Your task to perform on an android device: What's the weather going to be tomorrow? Image 0: 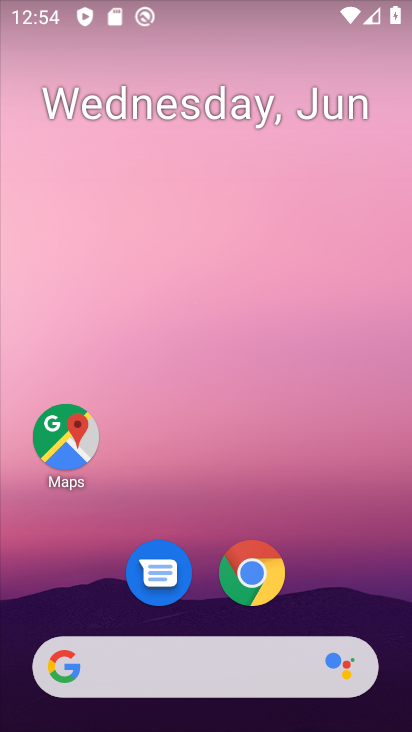
Step 0: drag from (337, 553) to (307, 165)
Your task to perform on an android device: What's the weather going to be tomorrow? Image 1: 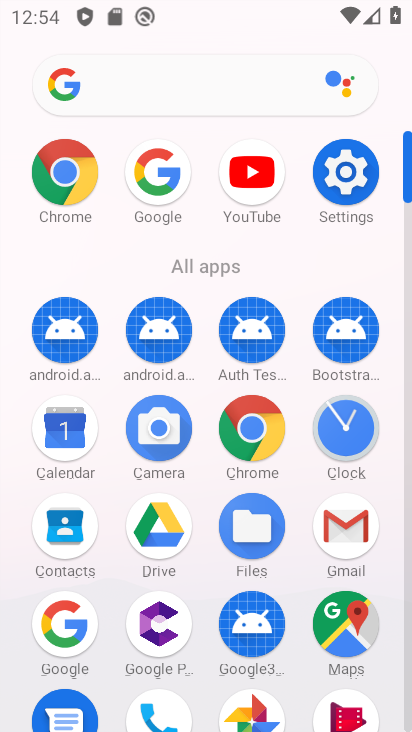
Step 1: click (245, 428)
Your task to perform on an android device: What's the weather going to be tomorrow? Image 2: 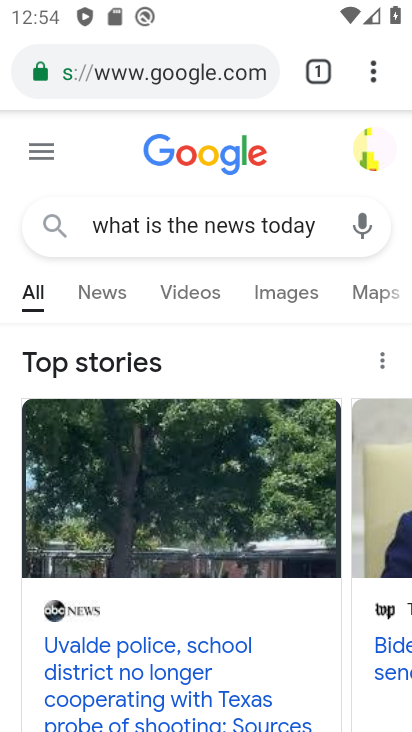
Step 2: click (149, 78)
Your task to perform on an android device: What's the weather going to be tomorrow? Image 3: 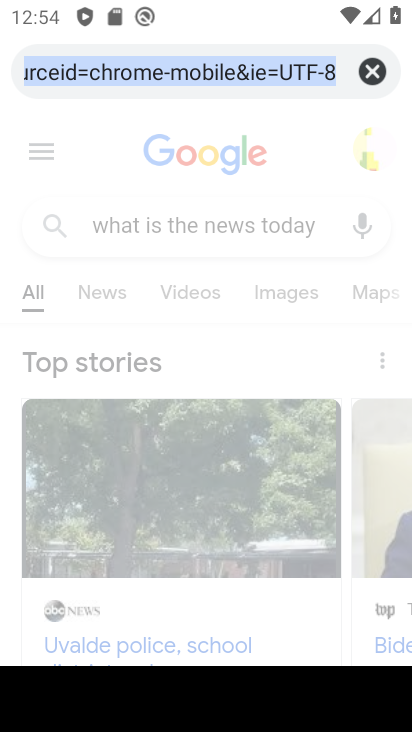
Step 3: click (367, 72)
Your task to perform on an android device: What's the weather going to be tomorrow? Image 4: 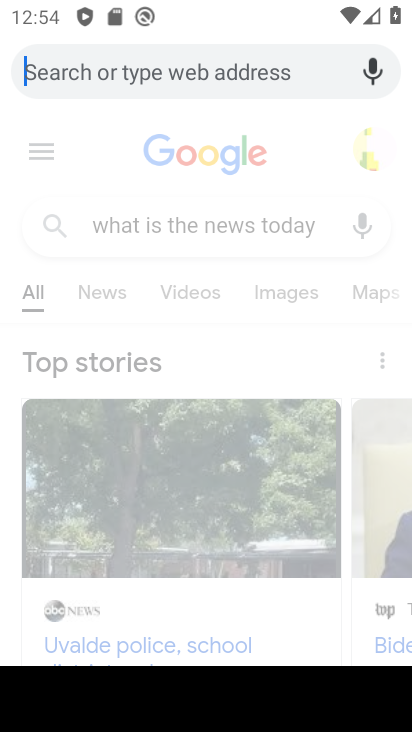
Step 4: click (276, 75)
Your task to perform on an android device: What's the weather going to be tomorrow? Image 5: 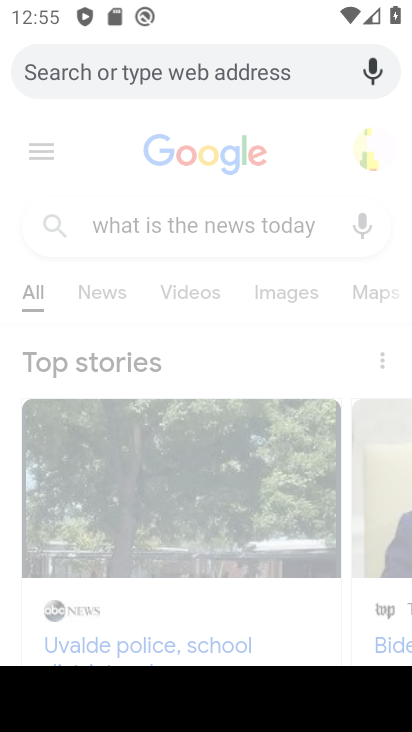
Step 5: type "what's the weather going to be tomorrow"
Your task to perform on an android device: What's the weather going to be tomorrow? Image 6: 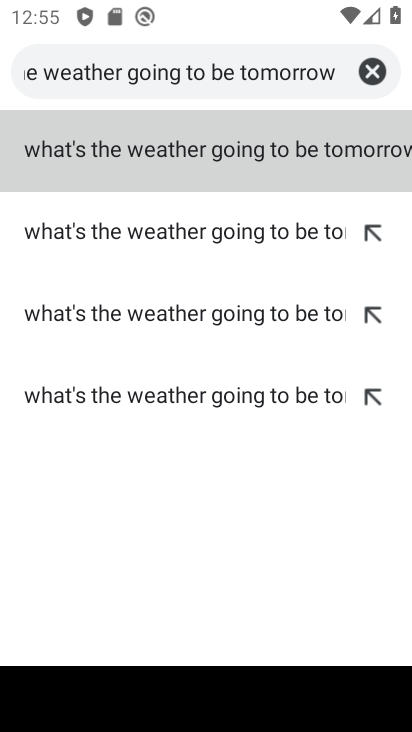
Step 6: click (187, 140)
Your task to perform on an android device: What's the weather going to be tomorrow? Image 7: 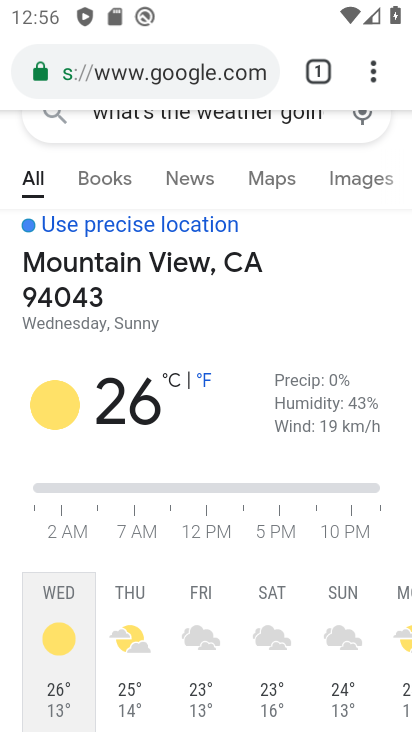
Step 7: task complete